Your task to perform on an android device: turn off data saver in the chrome app Image 0: 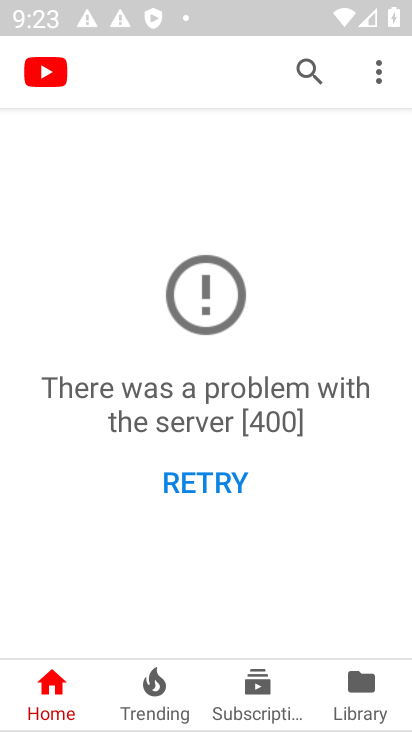
Step 0: press home button
Your task to perform on an android device: turn off data saver in the chrome app Image 1: 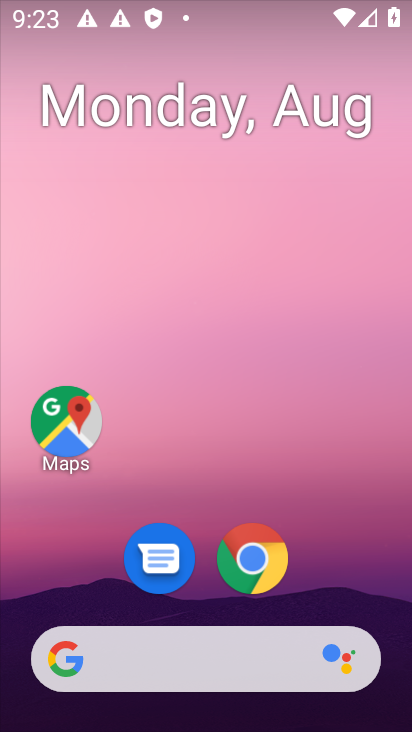
Step 1: click (251, 550)
Your task to perform on an android device: turn off data saver in the chrome app Image 2: 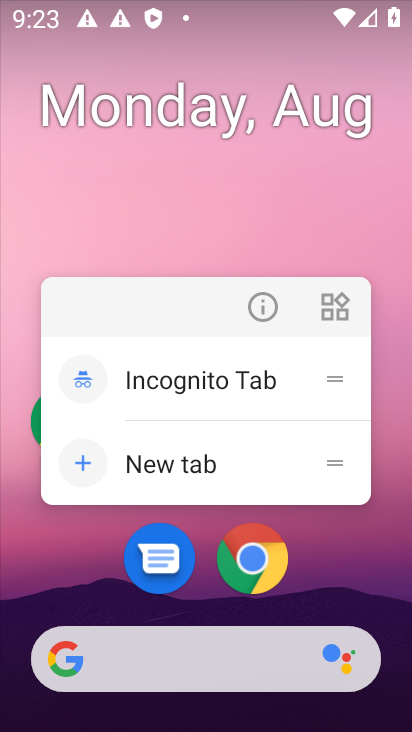
Step 2: click (247, 560)
Your task to perform on an android device: turn off data saver in the chrome app Image 3: 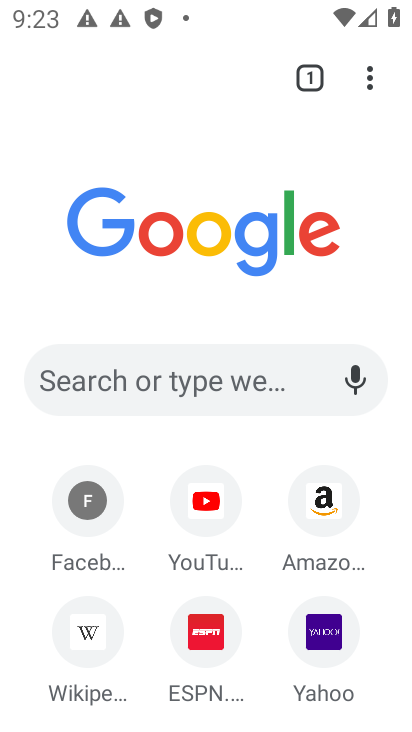
Step 3: click (371, 77)
Your task to perform on an android device: turn off data saver in the chrome app Image 4: 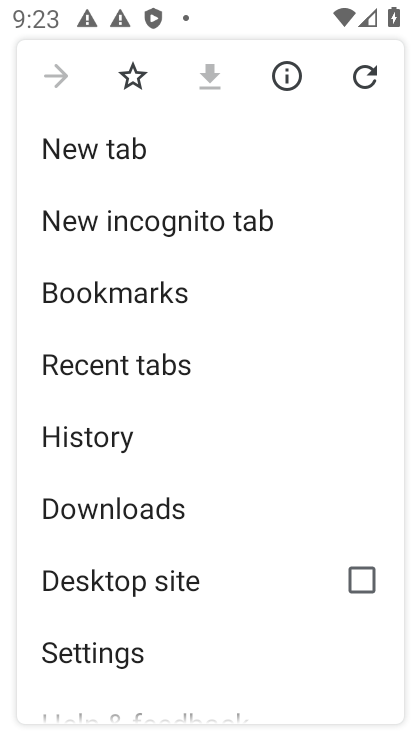
Step 4: click (154, 649)
Your task to perform on an android device: turn off data saver in the chrome app Image 5: 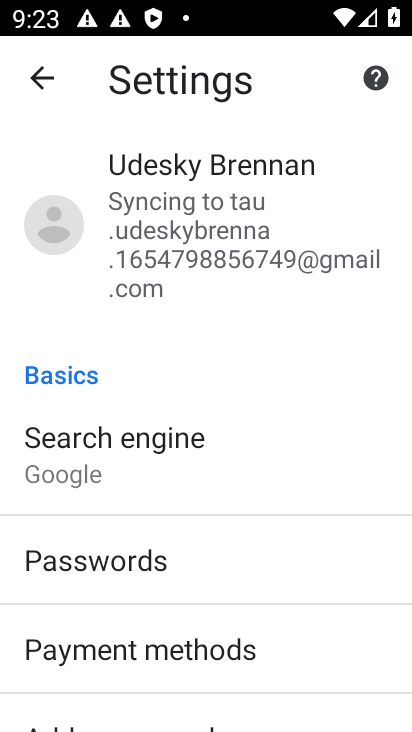
Step 5: drag from (208, 688) to (212, 133)
Your task to perform on an android device: turn off data saver in the chrome app Image 6: 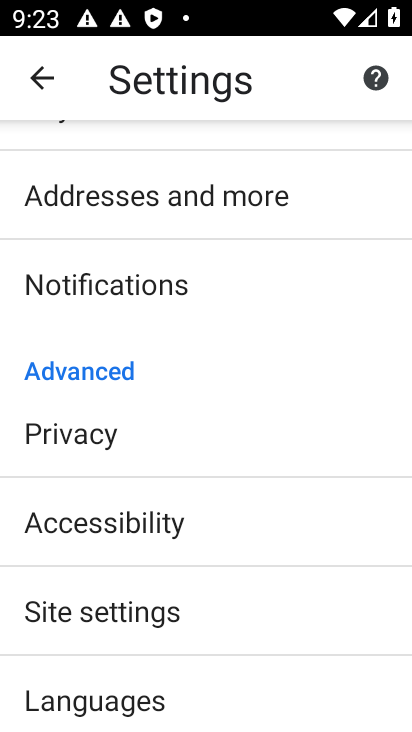
Step 6: drag from (208, 666) to (235, 79)
Your task to perform on an android device: turn off data saver in the chrome app Image 7: 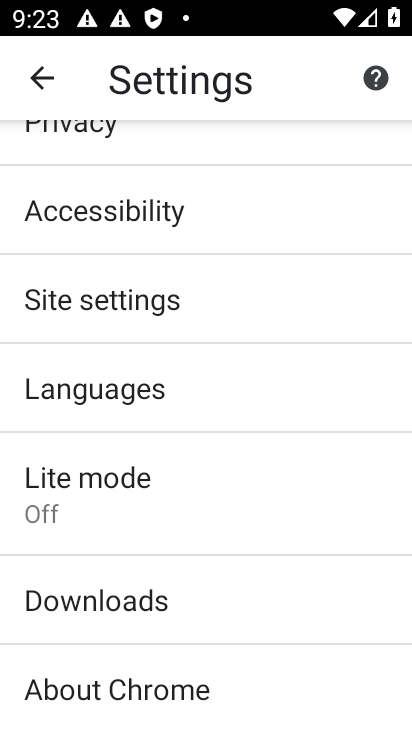
Step 7: click (89, 500)
Your task to perform on an android device: turn off data saver in the chrome app Image 8: 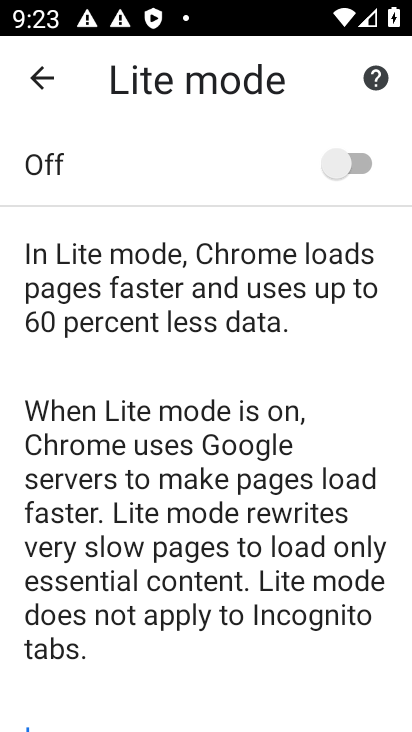
Step 8: task complete